Your task to perform on an android device: Is it going to rain this weekend? Image 0: 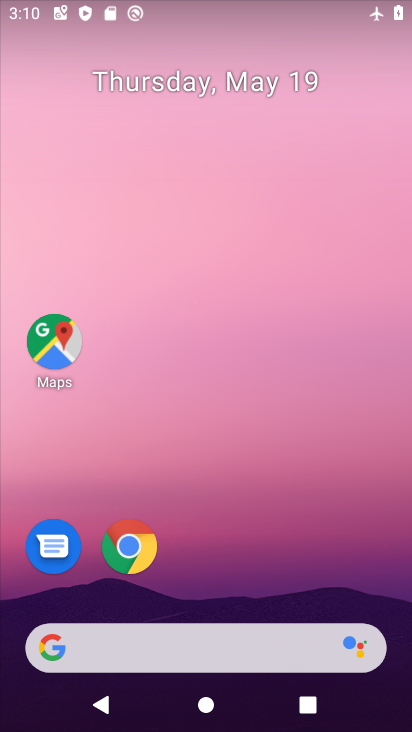
Step 0: drag from (259, 550) to (312, 199)
Your task to perform on an android device: Is it going to rain this weekend? Image 1: 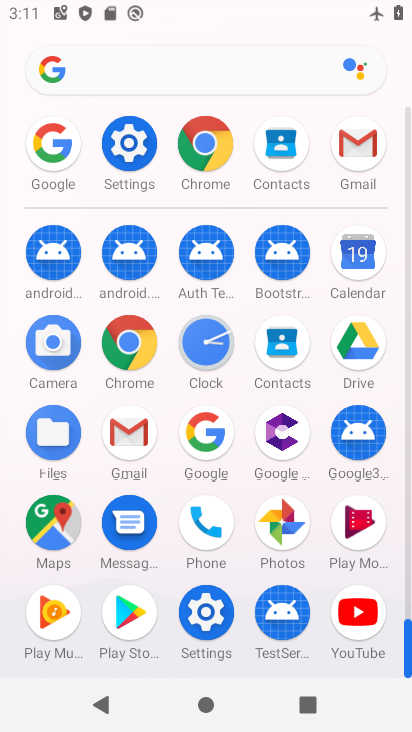
Step 1: click (202, 433)
Your task to perform on an android device: Is it going to rain this weekend? Image 2: 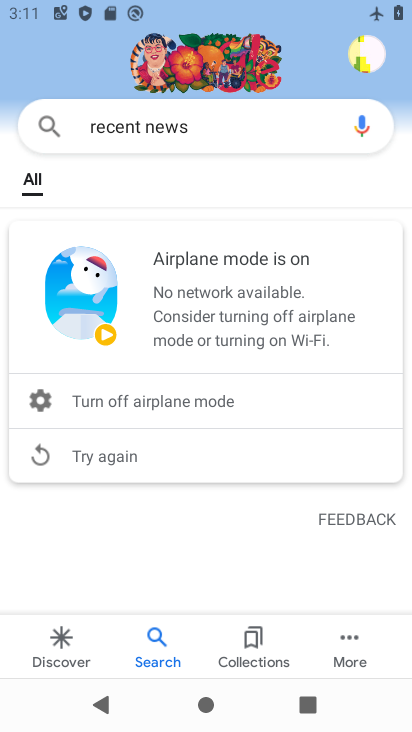
Step 2: task complete